Your task to perform on an android device: set default search engine in the chrome app Image 0: 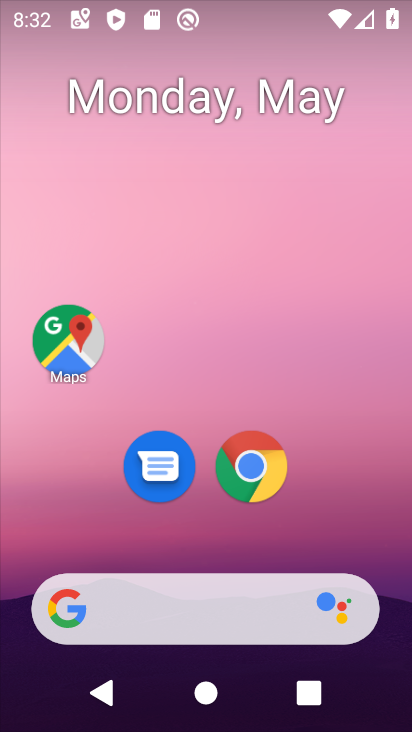
Step 0: drag from (237, 651) to (276, 143)
Your task to perform on an android device: set default search engine in the chrome app Image 1: 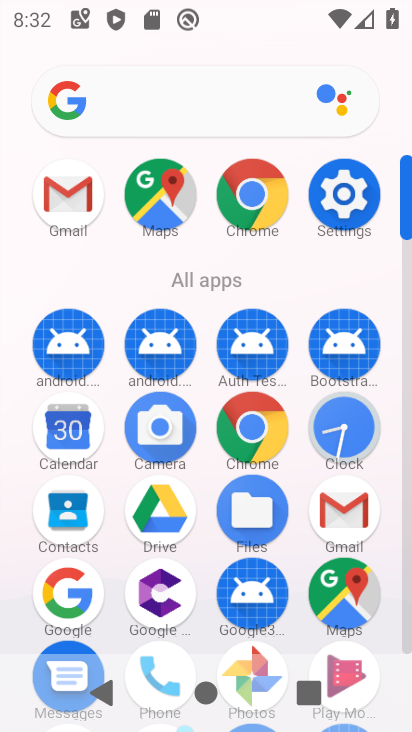
Step 1: click (253, 207)
Your task to perform on an android device: set default search engine in the chrome app Image 2: 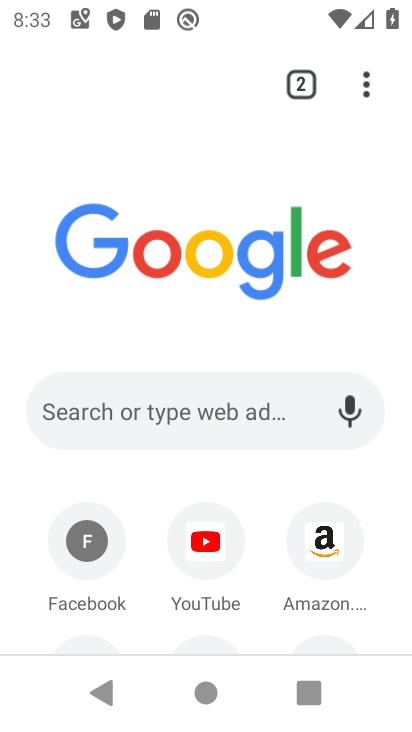
Step 2: click (362, 101)
Your task to perform on an android device: set default search engine in the chrome app Image 3: 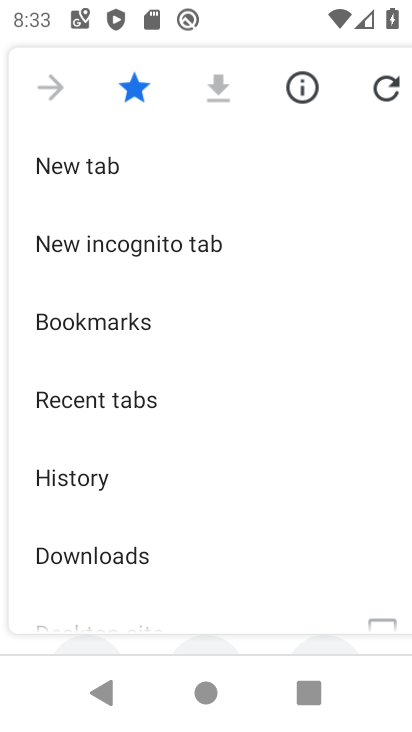
Step 3: drag from (182, 473) to (209, 201)
Your task to perform on an android device: set default search engine in the chrome app Image 4: 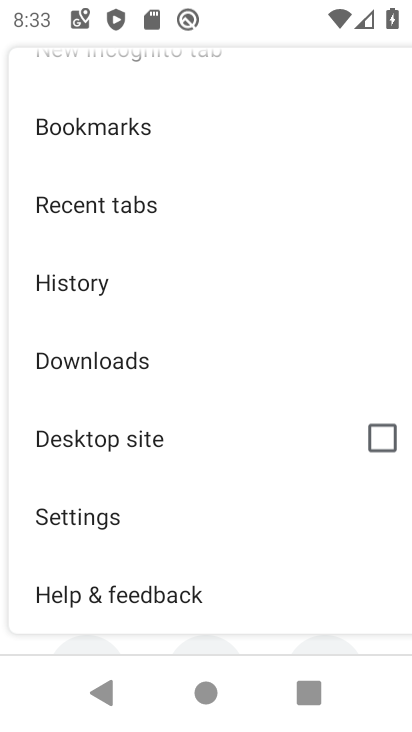
Step 4: click (67, 504)
Your task to perform on an android device: set default search engine in the chrome app Image 5: 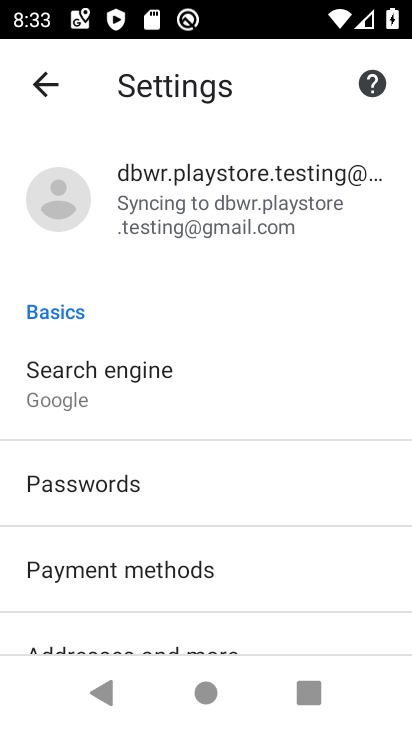
Step 5: click (81, 386)
Your task to perform on an android device: set default search engine in the chrome app Image 6: 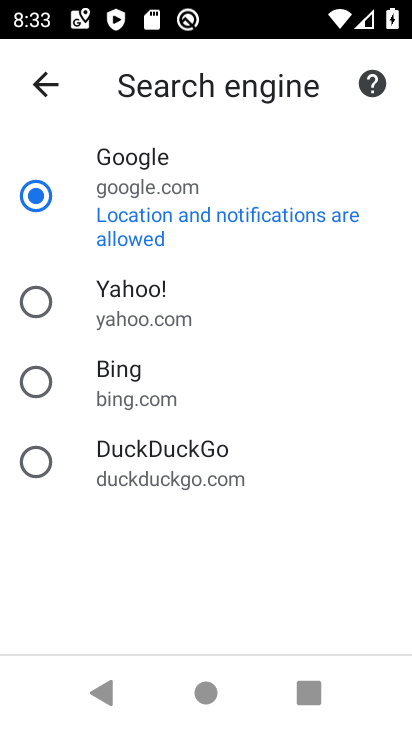
Step 6: task complete